Your task to perform on an android device: allow cookies in the chrome app Image 0: 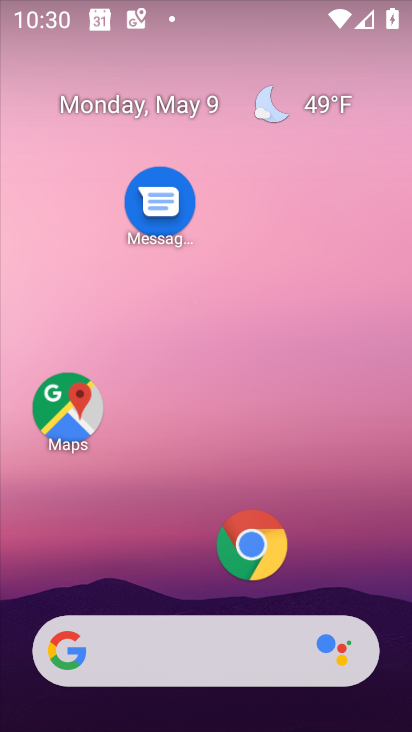
Step 0: click (243, 555)
Your task to perform on an android device: allow cookies in the chrome app Image 1: 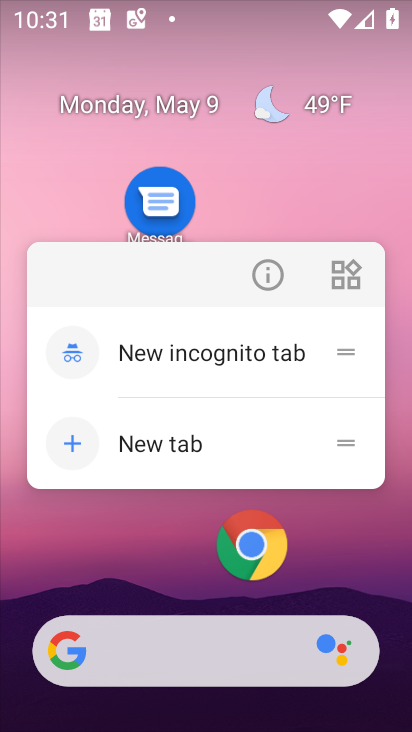
Step 1: click (243, 521)
Your task to perform on an android device: allow cookies in the chrome app Image 2: 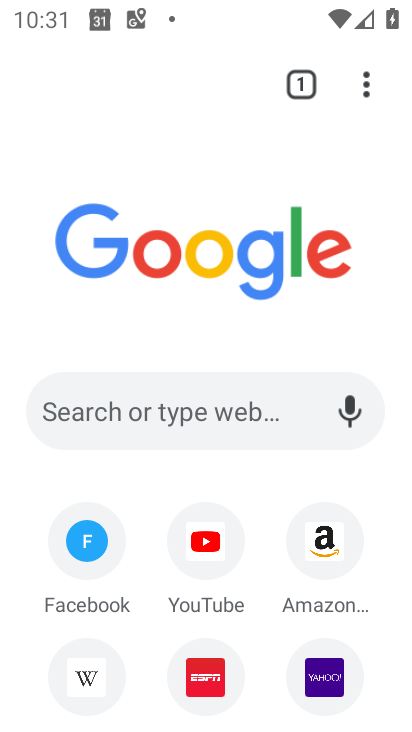
Step 2: click (381, 75)
Your task to perform on an android device: allow cookies in the chrome app Image 3: 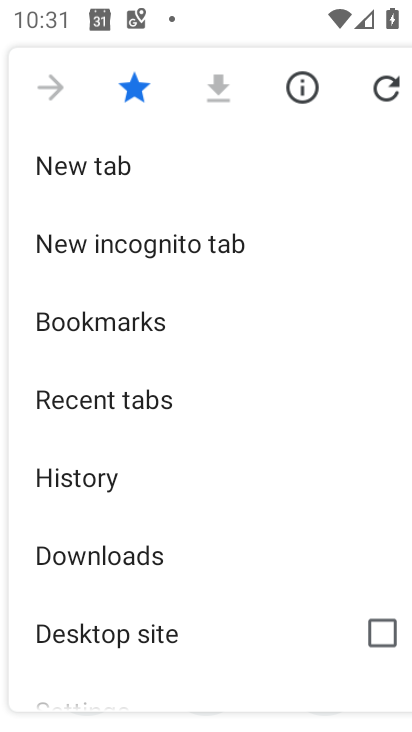
Step 3: drag from (172, 572) to (175, 186)
Your task to perform on an android device: allow cookies in the chrome app Image 4: 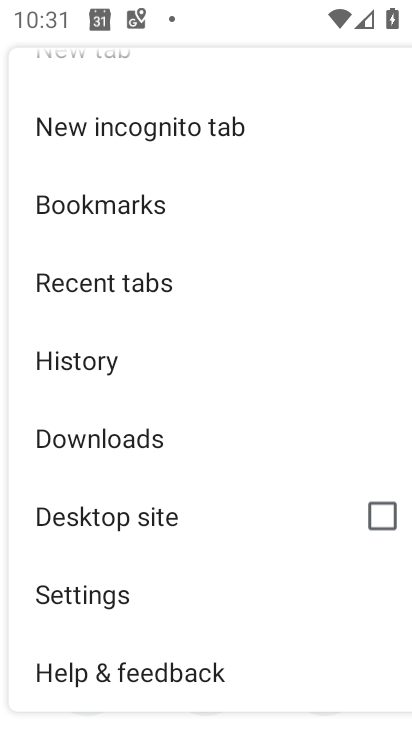
Step 4: click (133, 571)
Your task to perform on an android device: allow cookies in the chrome app Image 5: 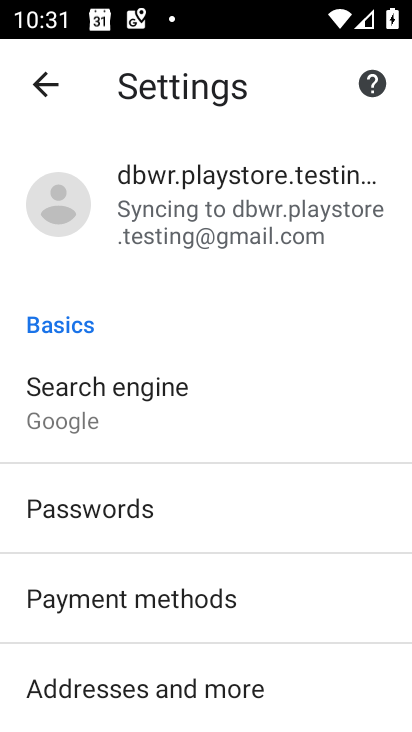
Step 5: drag from (143, 620) to (151, 336)
Your task to perform on an android device: allow cookies in the chrome app Image 6: 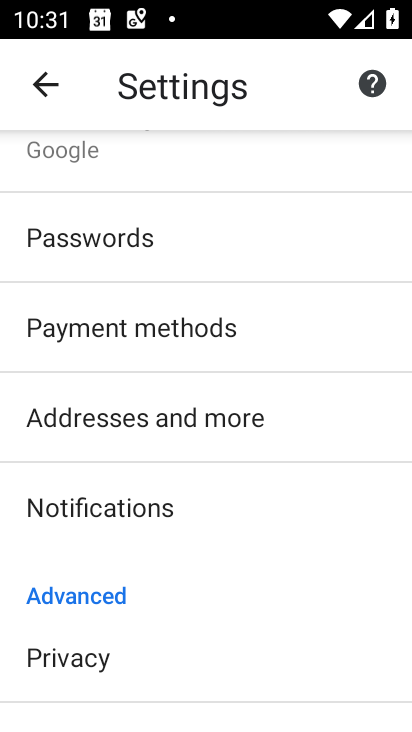
Step 6: drag from (189, 605) to (190, 355)
Your task to perform on an android device: allow cookies in the chrome app Image 7: 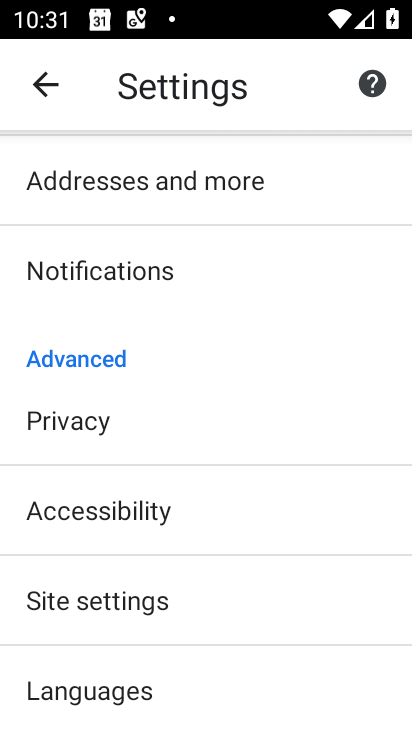
Step 7: click (175, 603)
Your task to perform on an android device: allow cookies in the chrome app Image 8: 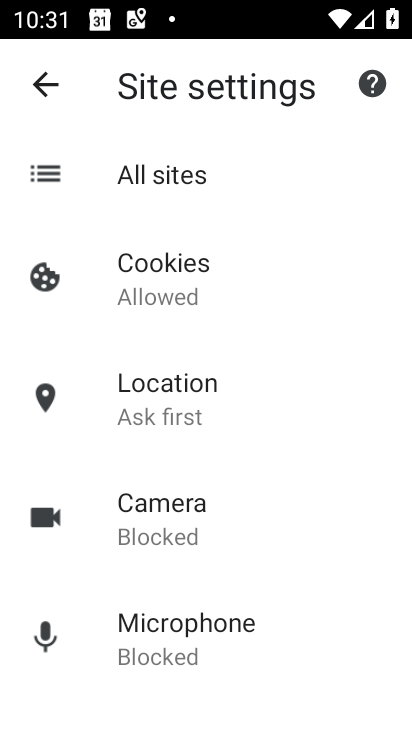
Step 8: click (214, 283)
Your task to perform on an android device: allow cookies in the chrome app Image 9: 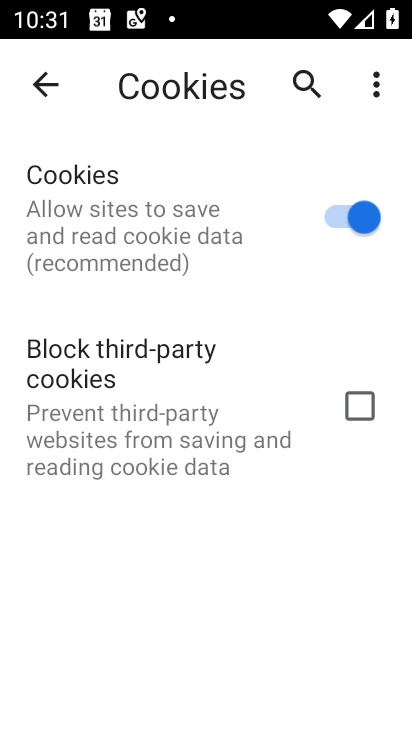
Step 9: task complete